Your task to perform on an android device: add a contact Image 0: 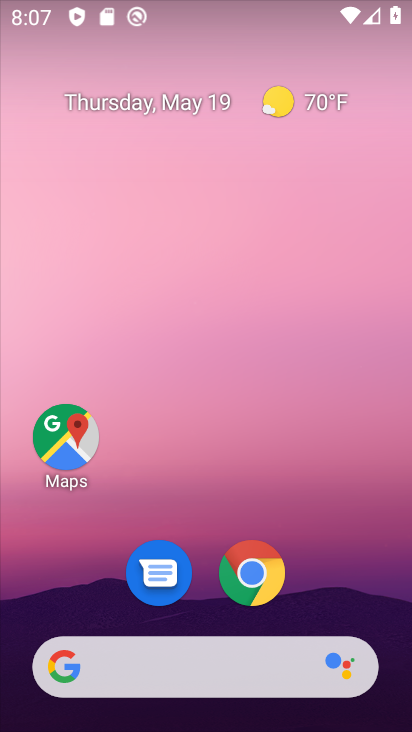
Step 0: drag from (234, 704) to (188, 203)
Your task to perform on an android device: add a contact Image 1: 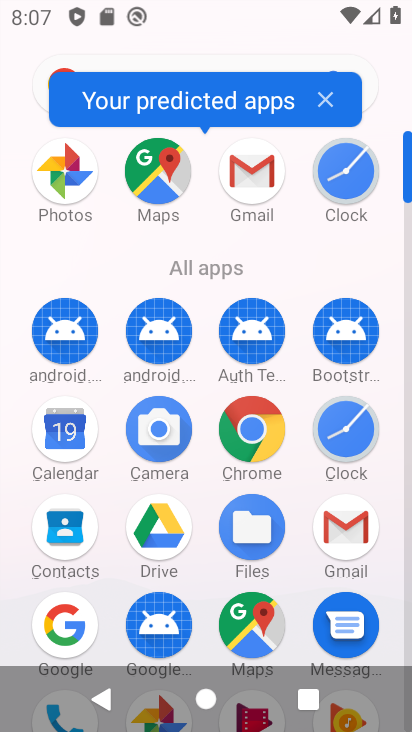
Step 1: drag from (210, 543) to (200, 362)
Your task to perform on an android device: add a contact Image 2: 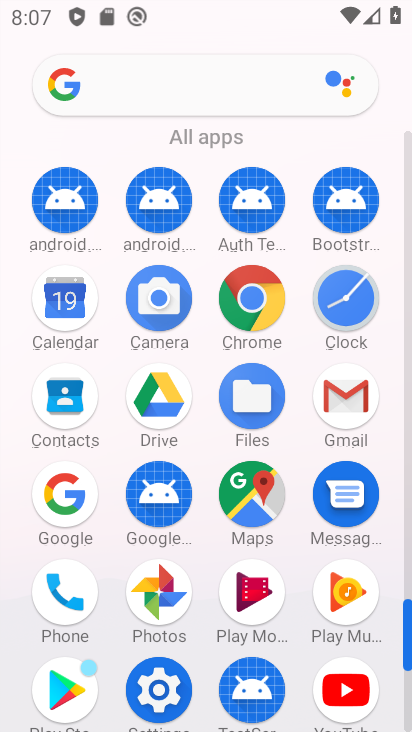
Step 2: click (82, 600)
Your task to perform on an android device: add a contact Image 3: 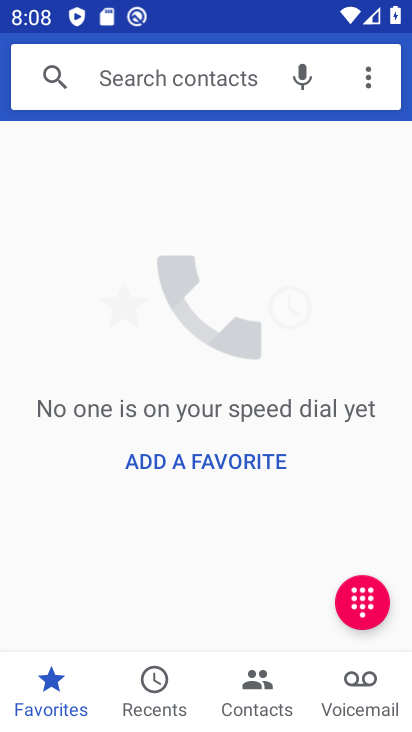
Step 3: click (269, 685)
Your task to perform on an android device: add a contact Image 4: 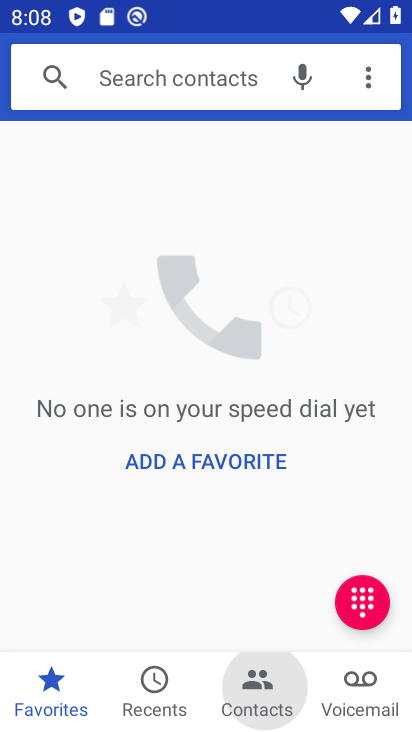
Step 4: click (272, 682)
Your task to perform on an android device: add a contact Image 5: 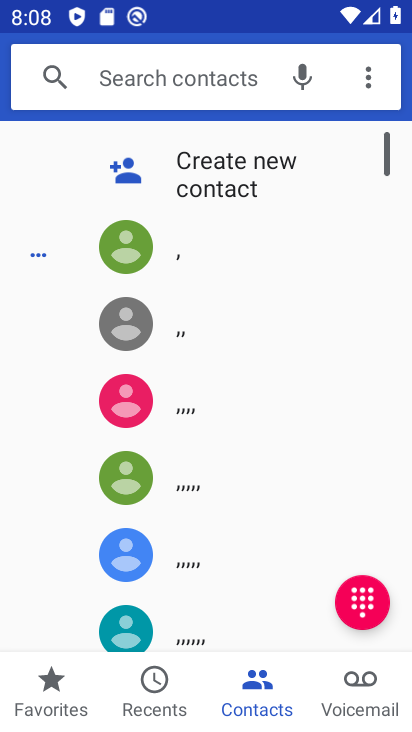
Step 5: click (272, 682)
Your task to perform on an android device: add a contact Image 6: 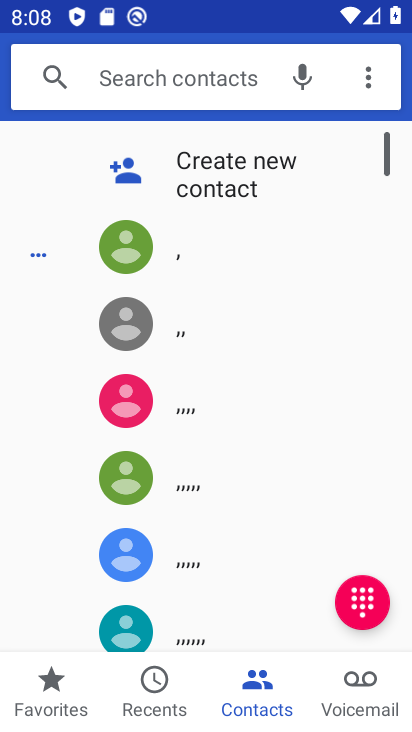
Step 6: click (195, 190)
Your task to perform on an android device: add a contact Image 7: 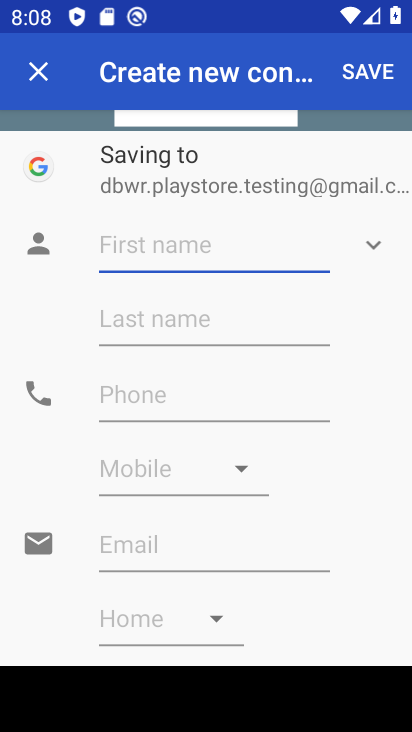
Step 7: drag from (390, 720) to (373, 545)
Your task to perform on an android device: add a contact Image 8: 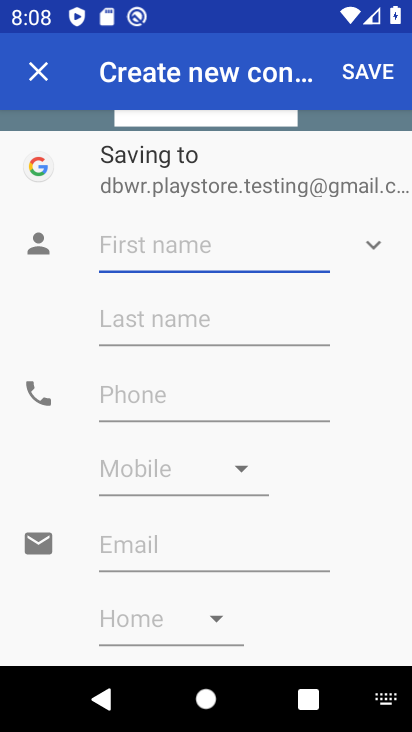
Step 8: click (386, 705)
Your task to perform on an android device: add a contact Image 9: 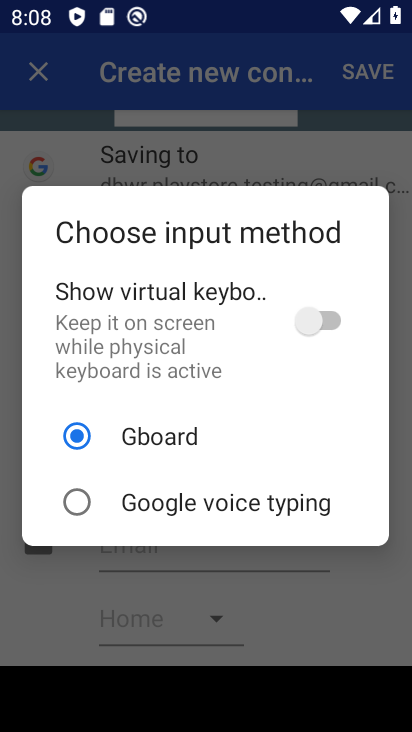
Step 9: click (314, 324)
Your task to perform on an android device: add a contact Image 10: 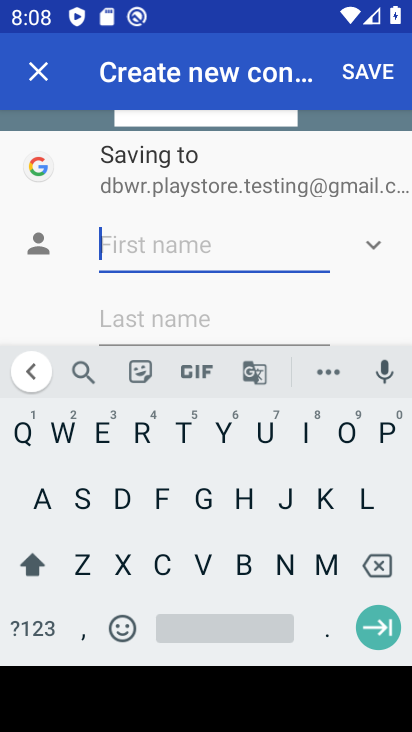
Step 10: click (190, 488)
Your task to perform on an android device: add a contact Image 11: 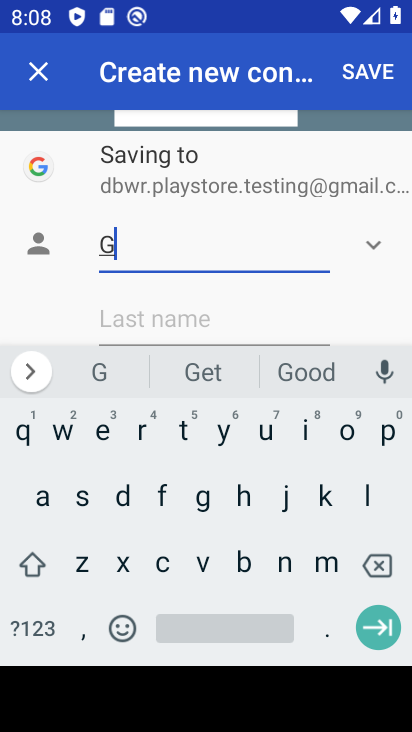
Step 11: click (165, 494)
Your task to perform on an android device: add a contact Image 12: 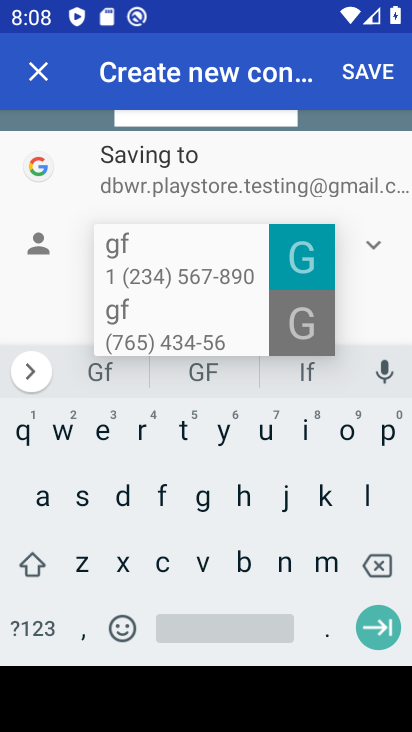
Step 12: click (87, 435)
Your task to perform on an android device: add a contact Image 13: 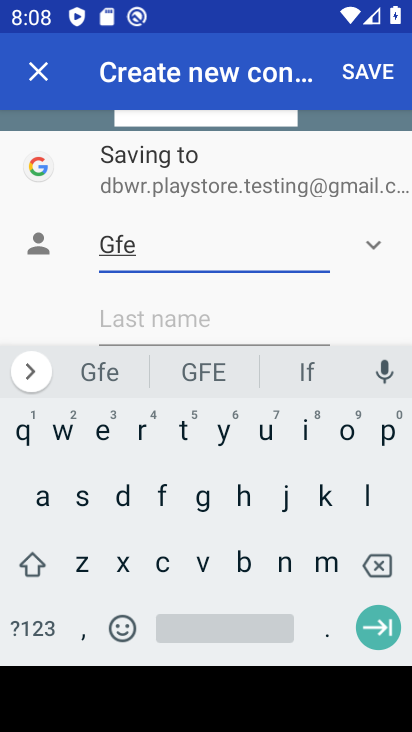
Step 13: drag from (168, 338) to (181, 187)
Your task to perform on an android device: add a contact Image 14: 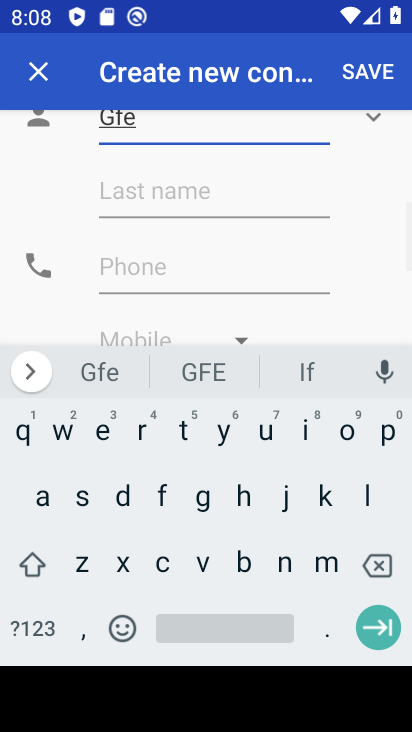
Step 14: click (127, 258)
Your task to perform on an android device: add a contact Image 15: 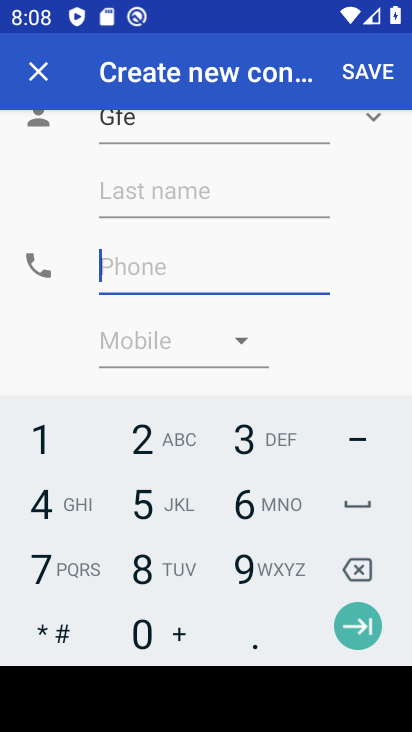
Step 15: click (353, 549)
Your task to perform on an android device: add a contact Image 16: 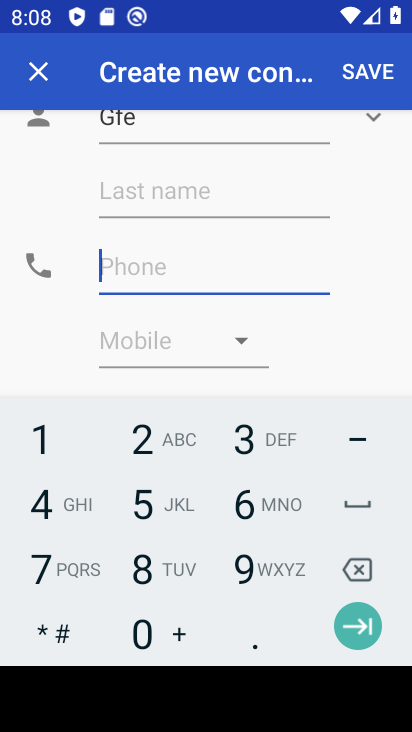
Step 16: click (256, 485)
Your task to perform on an android device: add a contact Image 17: 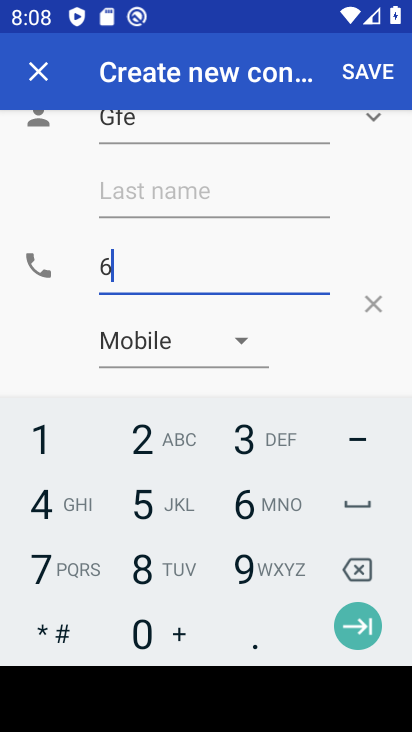
Step 17: click (188, 481)
Your task to perform on an android device: add a contact Image 18: 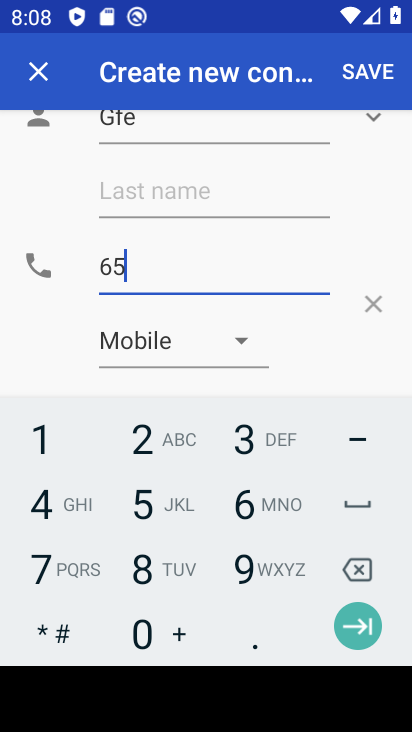
Step 18: click (133, 530)
Your task to perform on an android device: add a contact Image 19: 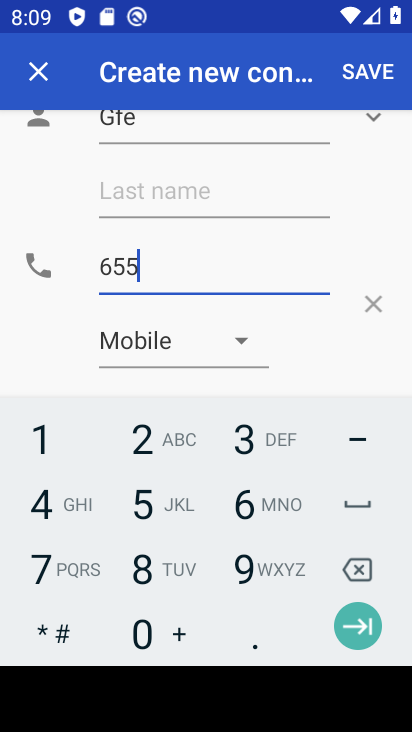
Step 19: click (71, 509)
Your task to perform on an android device: add a contact Image 20: 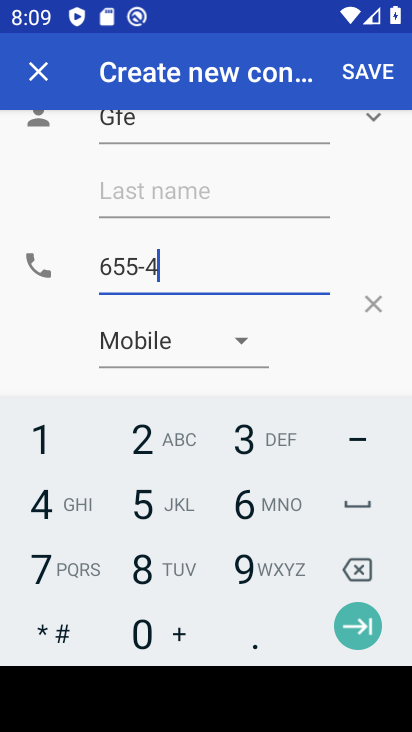
Step 20: click (160, 575)
Your task to perform on an android device: add a contact Image 21: 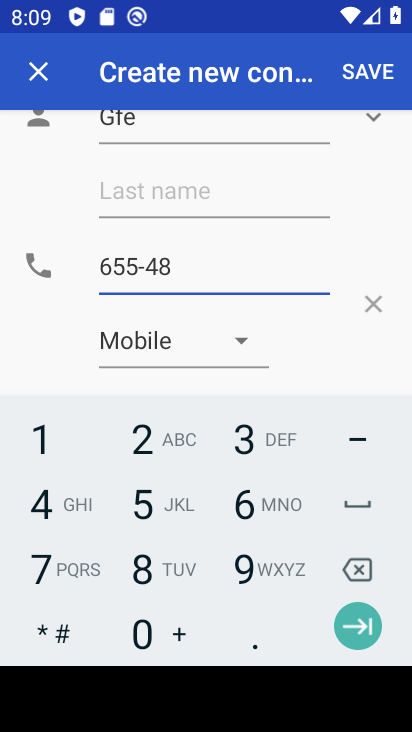
Step 21: click (359, 72)
Your task to perform on an android device: add a contact Image 22: 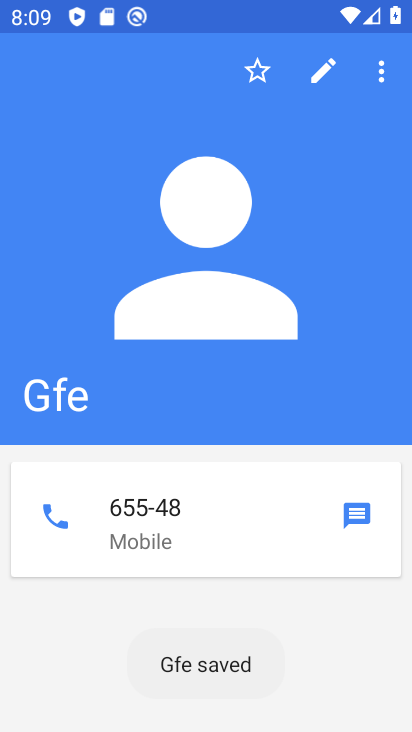
Step 22: task complete